Your task to perform on an android device: toggle notification dots Image 0: 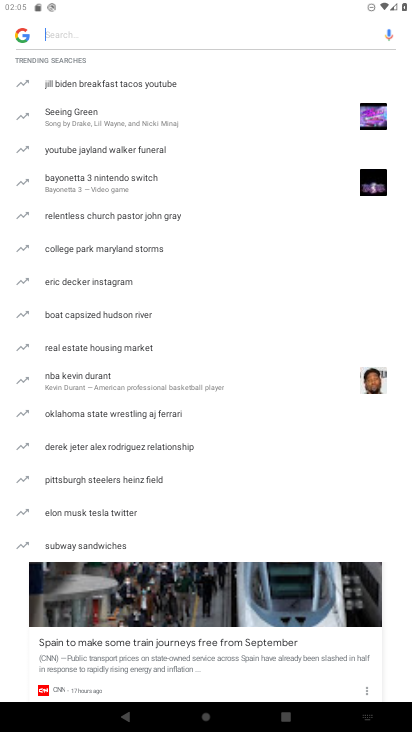
Step 0: press back button
Your task to perform on an android device: toggle notification dots Image 1: 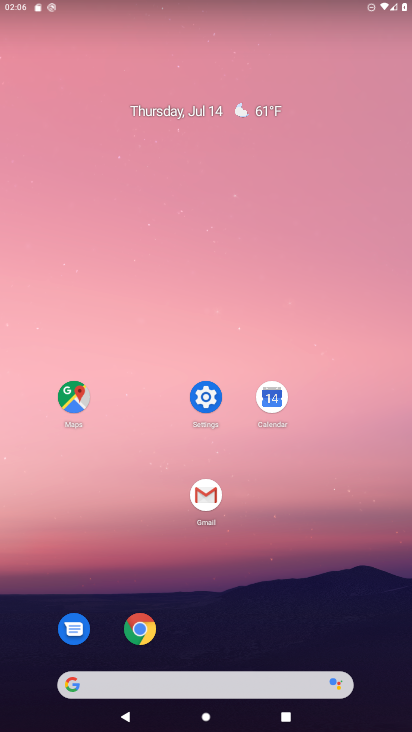
Step 1: drag from (408, 704) to (345, 175)
Your task to perform on an android device: toggle notification dots Image 2: 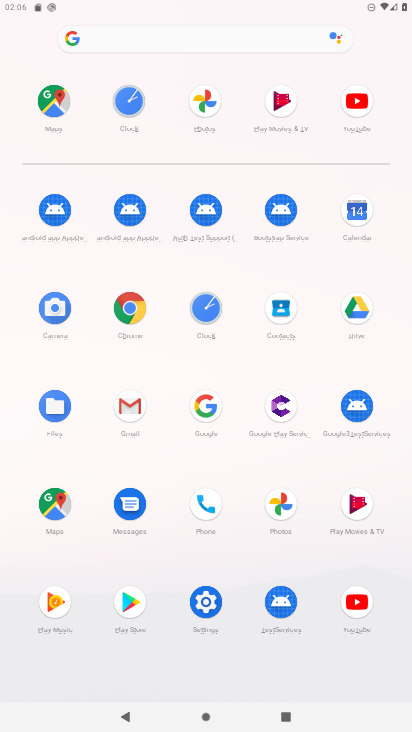
Step 2: click (206, 604)
Your task to perform on an android device: toggle notification dots Image 3: 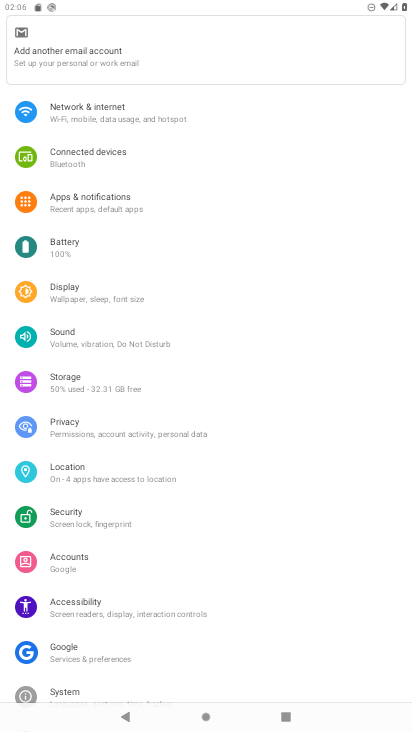
Step 3: click (88, 203)
Your task to perform on an android device: toggle notification dots Image 4: 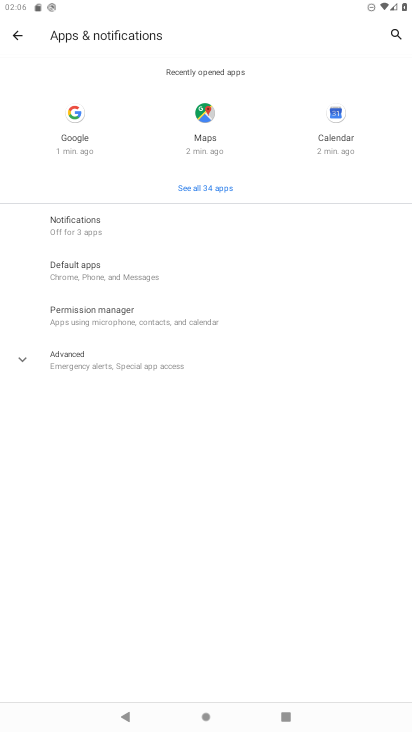
Step 4: click (79, 232)
Your task to perform on an android device: toggle notification dots Image 5: 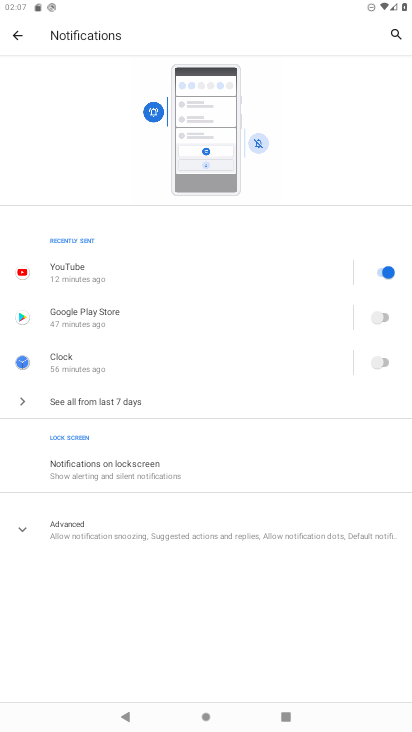
Step 5: click (57, 472)
Your task to perform on an android device: toggle notification dots Image 6: 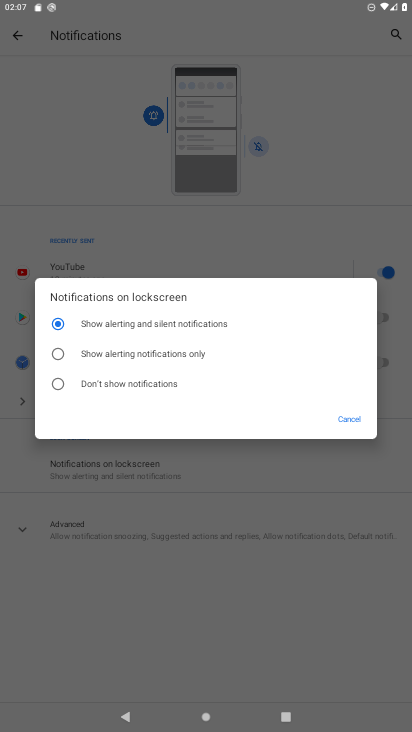
Step 6: click (48, 525)
Your task to perform on an android device: toggle notification dots Image 7: 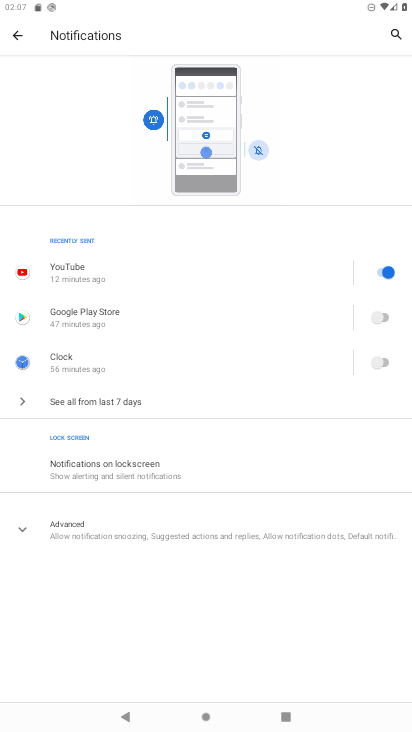
Step 7: click (25, 527)
Your task to perform on an android device: toggle notification dots Image 8: 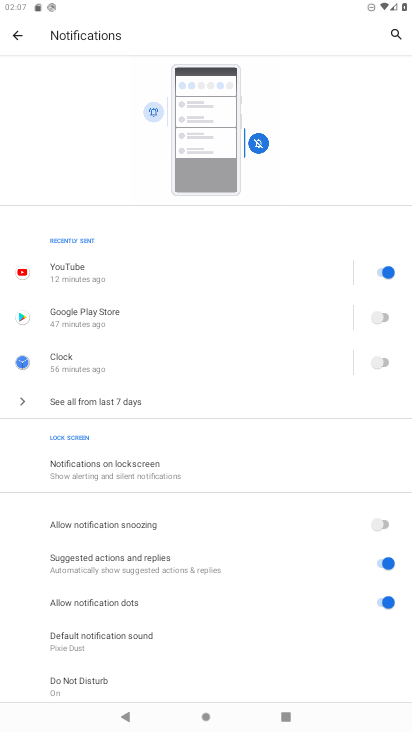
Step 8: click (381, 601)
Your task to perform on an android device: toggle notification dots Image 9: 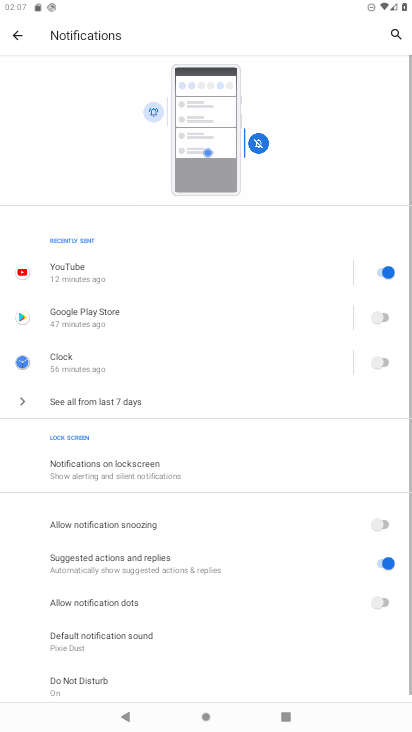
Step 9: task complete